Your task to perform on an android device: toggle location history Image 0: 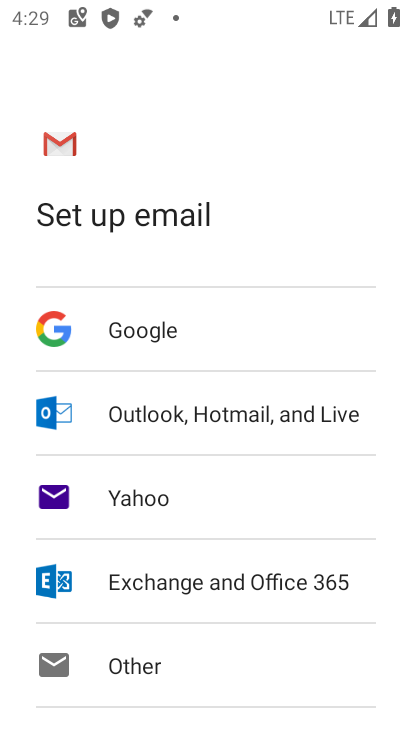
Step 0: press back button
Your task to perform on an android device: toggle location history Image 1: 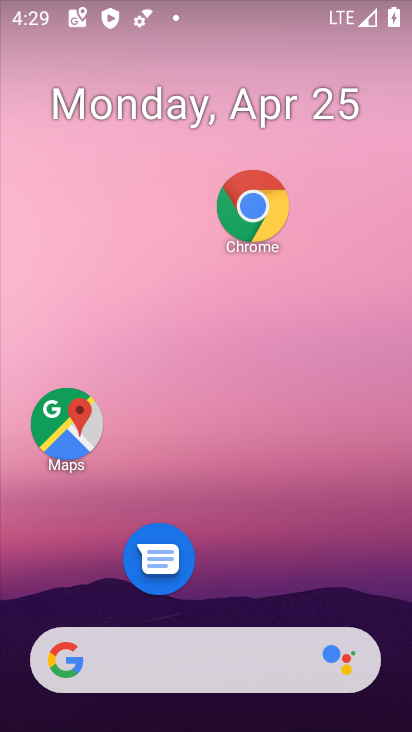
Step 1: drag from (296, 564) to (250, 28)
Your task to perform on an android device: toggle location history Image 2: 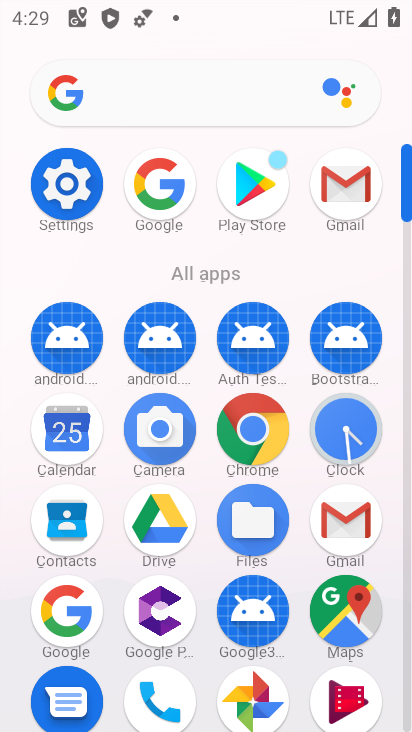
Step 2: click (65, 184)
Your task to perform on an android device: toggle location history Image 3: 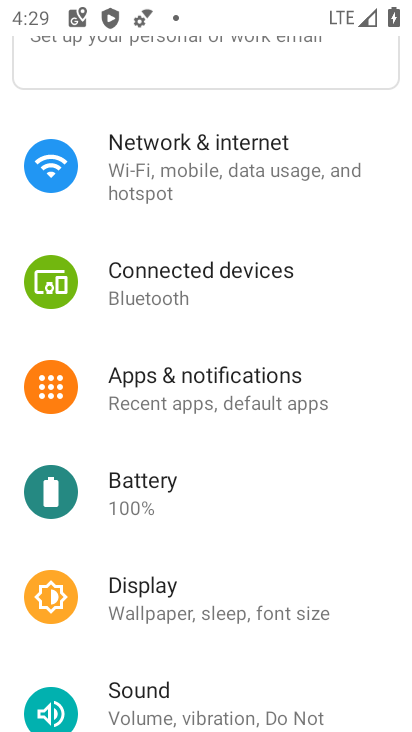
Step 3: drag from (182, 535) to (241, 421)
Your task to perform on an android device: toggle location history Image 4: 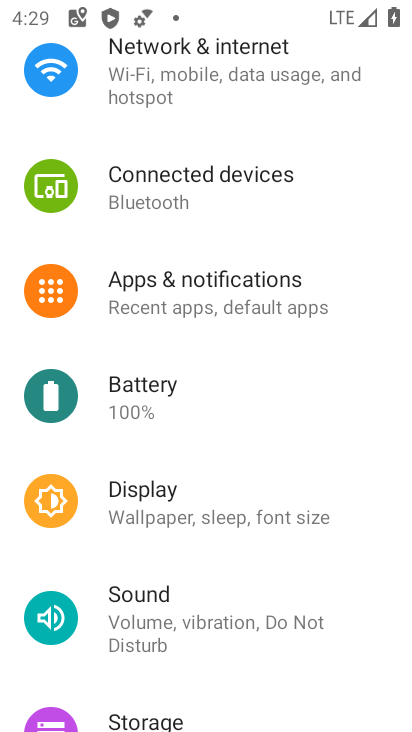
Step 4: drag from (172, 554) to (231, 432)
Your task to perform on an android device: toggle location history Image 5: 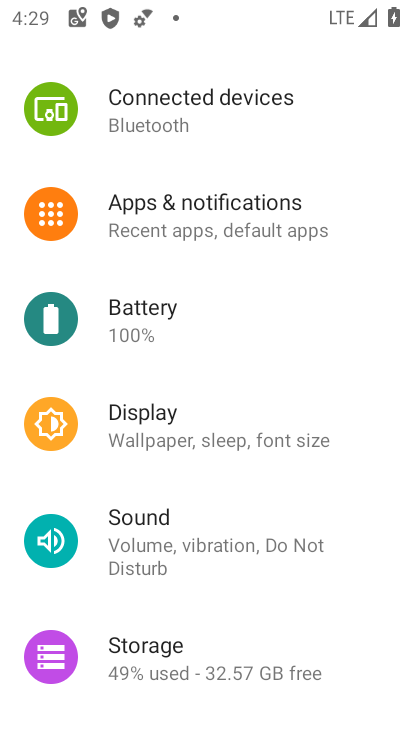
Step 5: drag from (150, 595) to (223, 476)
Your task to perform on an android device: toggle location history Image 6: 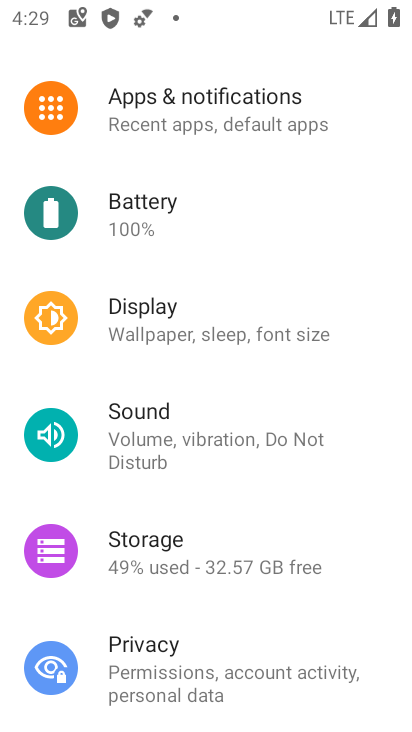
Step 6: drag from (146, 602) to (217, 497)
Your task to perform on an android device: toggle location history Image 7: 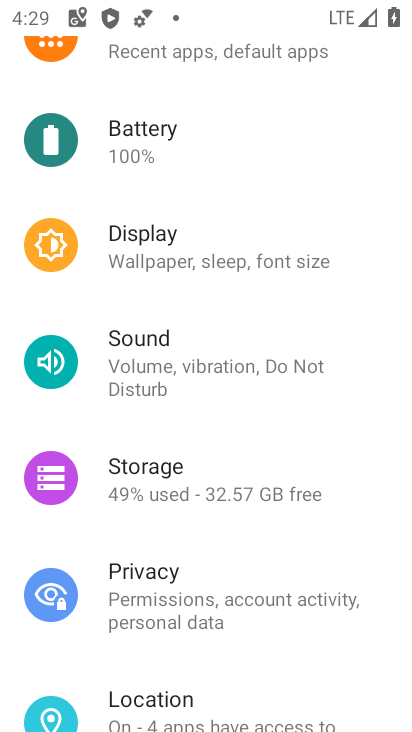
Step 7: drag from (133, 653) to (258, 506)
Your task to perform on an android device: toggle location history Image 8: 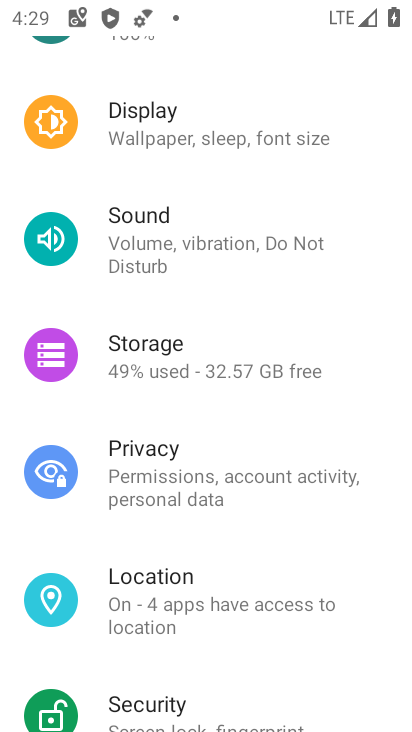
Step 8: click (147, 576)
Your task to perform on an android device: toggle location history Image 9: 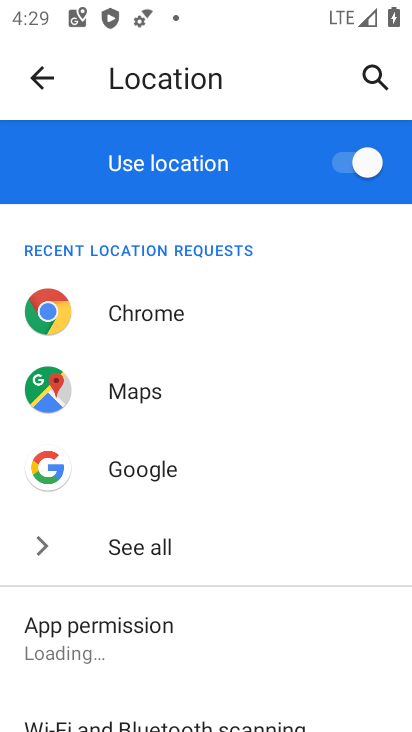
Step 9: drag from (211, 674) to (311, 503)
Your task to perform on an android device: toggle location history Image 10: 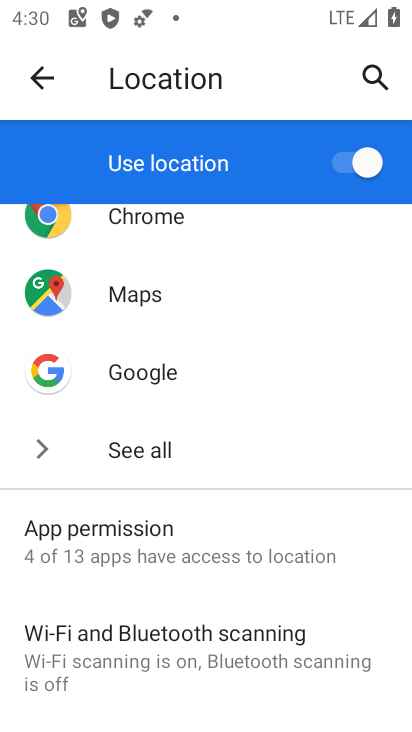
Step 10: drag from (204, 674) to (329, 511)
Your task to perform on an android device: toggle location history Image 11: 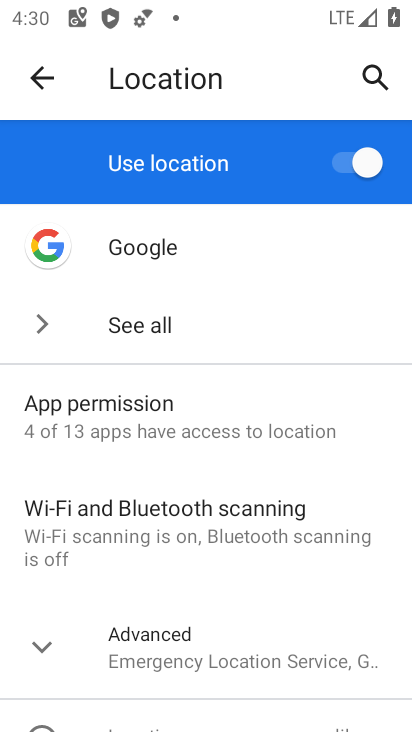
Step 11: click (179, 647)
Your task to perform on an android device: toggle location history Image 12: 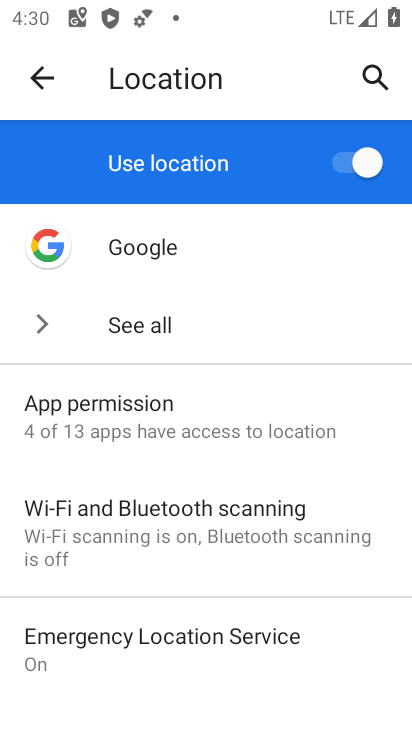
Step 12: drag from (167, 669) to (271, 536)
Your task to perform on an android device: toggle location history Image 13: 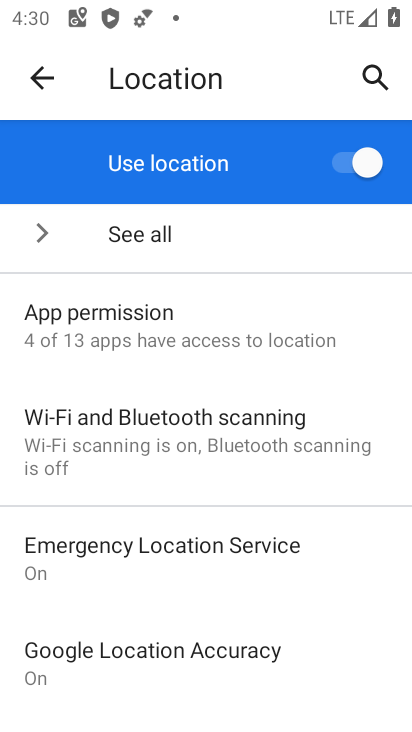
Step 13: drag from (225, 614) to (306, 486)
Your task to perform on an android device: toggle location history Image 14: 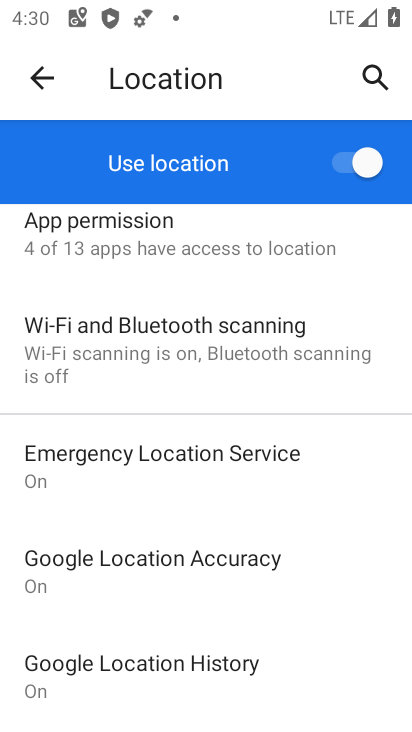
Step 14: click (117, 671)
Your task to perform on an android device: toggle location history Image 15: 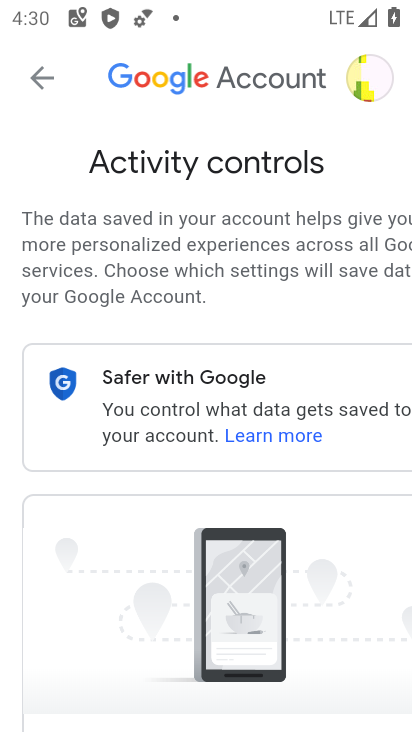
Step 15: task complete